Your task to perform on an android device: Empty the shopping cart on costco.com. Search for logitech g910 on costco.com, select the first entry, add it to the cart, then select checkout. Image 0: 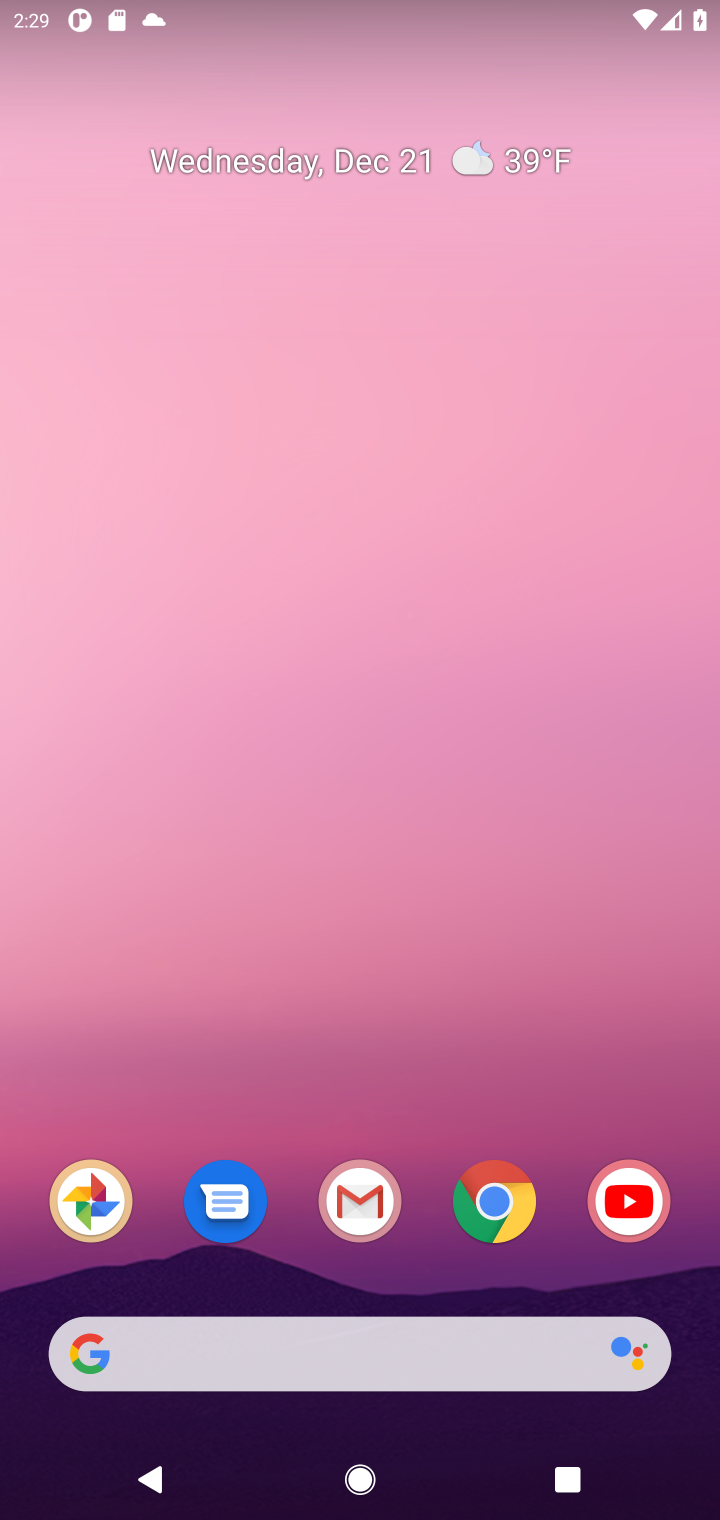
Step 0: click (508, 1208)
Your task to perform on an android device: Empty the shopping cart on costco.com. Search for logitech g910 on costco.com, select the first entry, add it to the cart, then select checkout. Image 1: 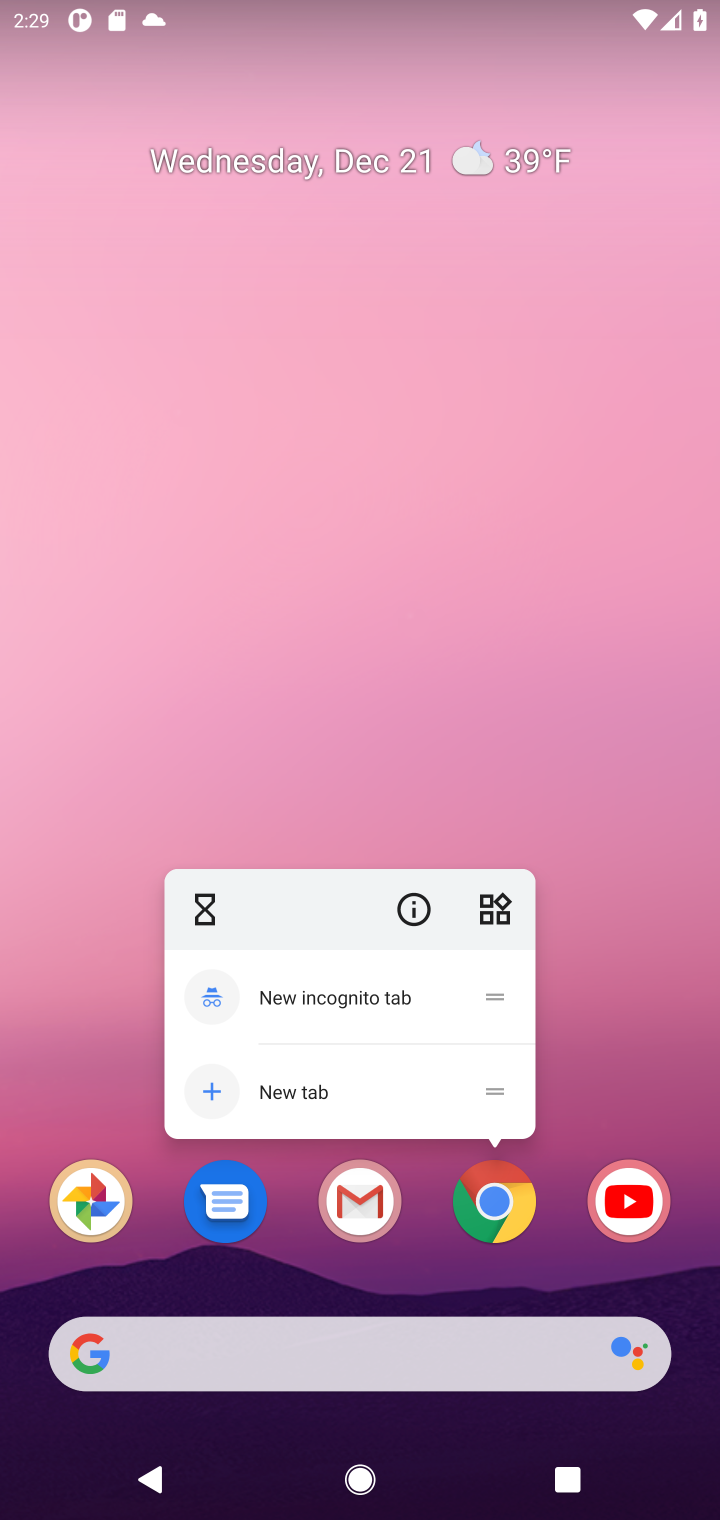
Step 1: click (506, 1208)
Your task to perform on an android device: Empty the shopping cart on costco.com. Search for logitech g910 on costco.com, select the first entry, add it to the cart, then select checkout. Image 2: 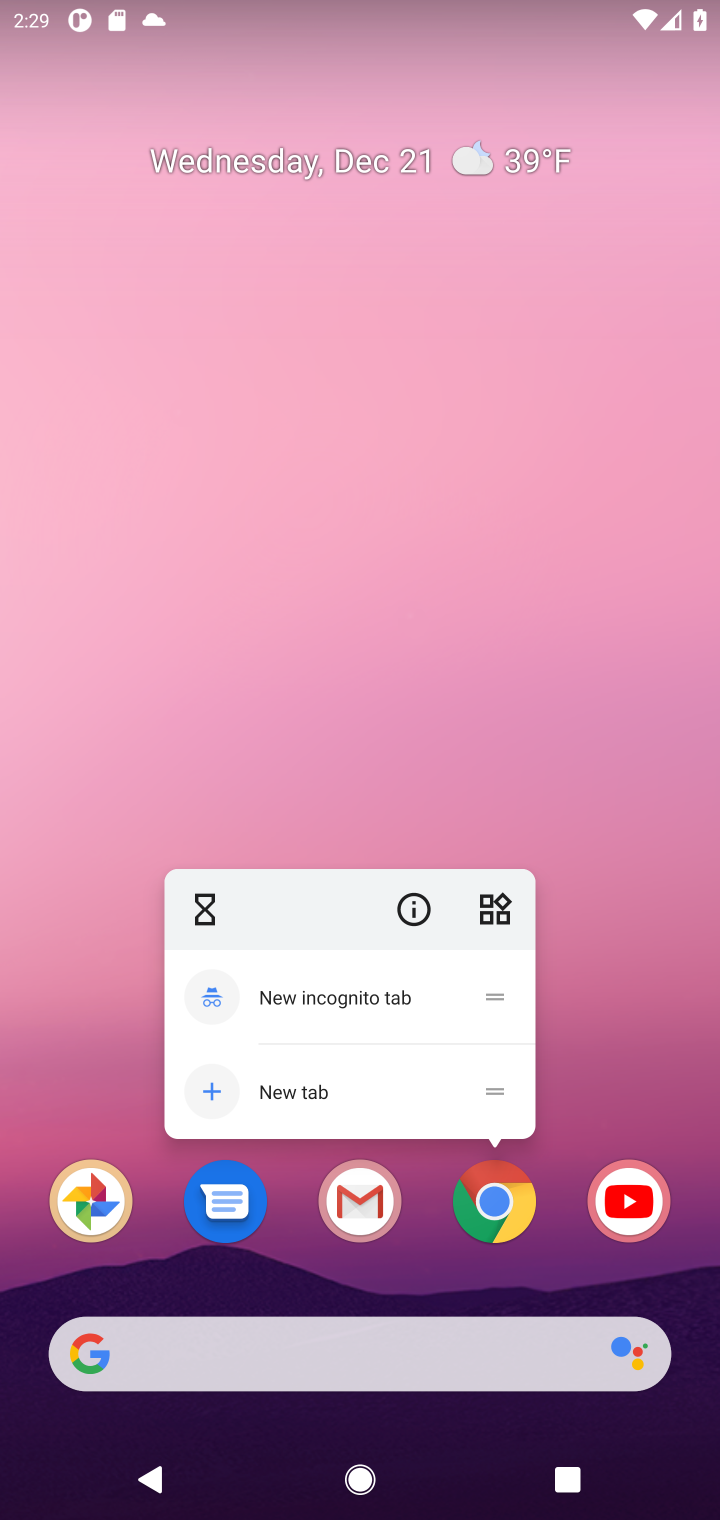
Step 2: click (506, 1208)
Your task to perform on an android device: Empty the shopping cart on costco.com. Search for logitech g910 on costco.com, select the first entry, add it to the cart, then select checkout. Image 3: 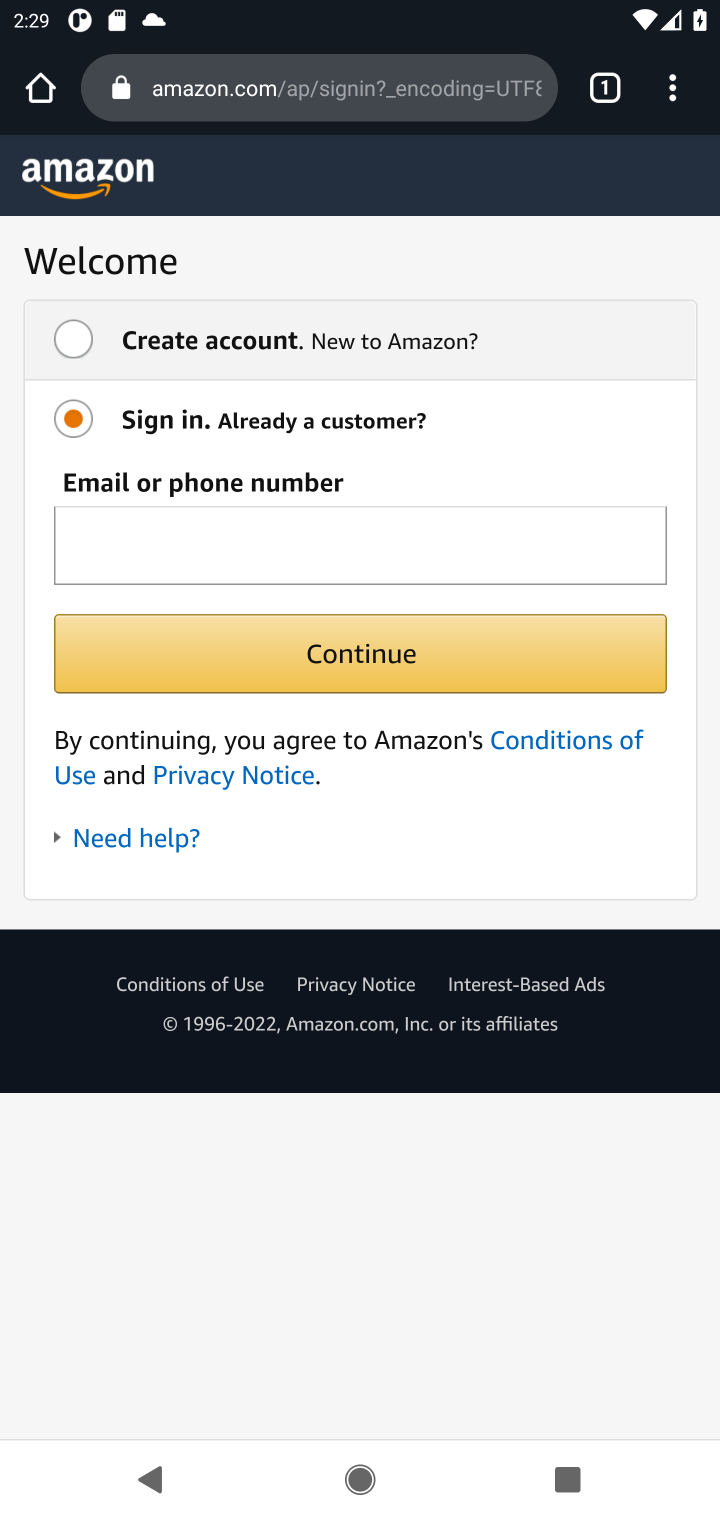
Step 3: click (268, 100)
Your task to perform on an android device: Empty the shopping cart on costco.com. Search for logitech g910 on costco.com, select the first entry, add it to the cart, then select checkout. Image 4: 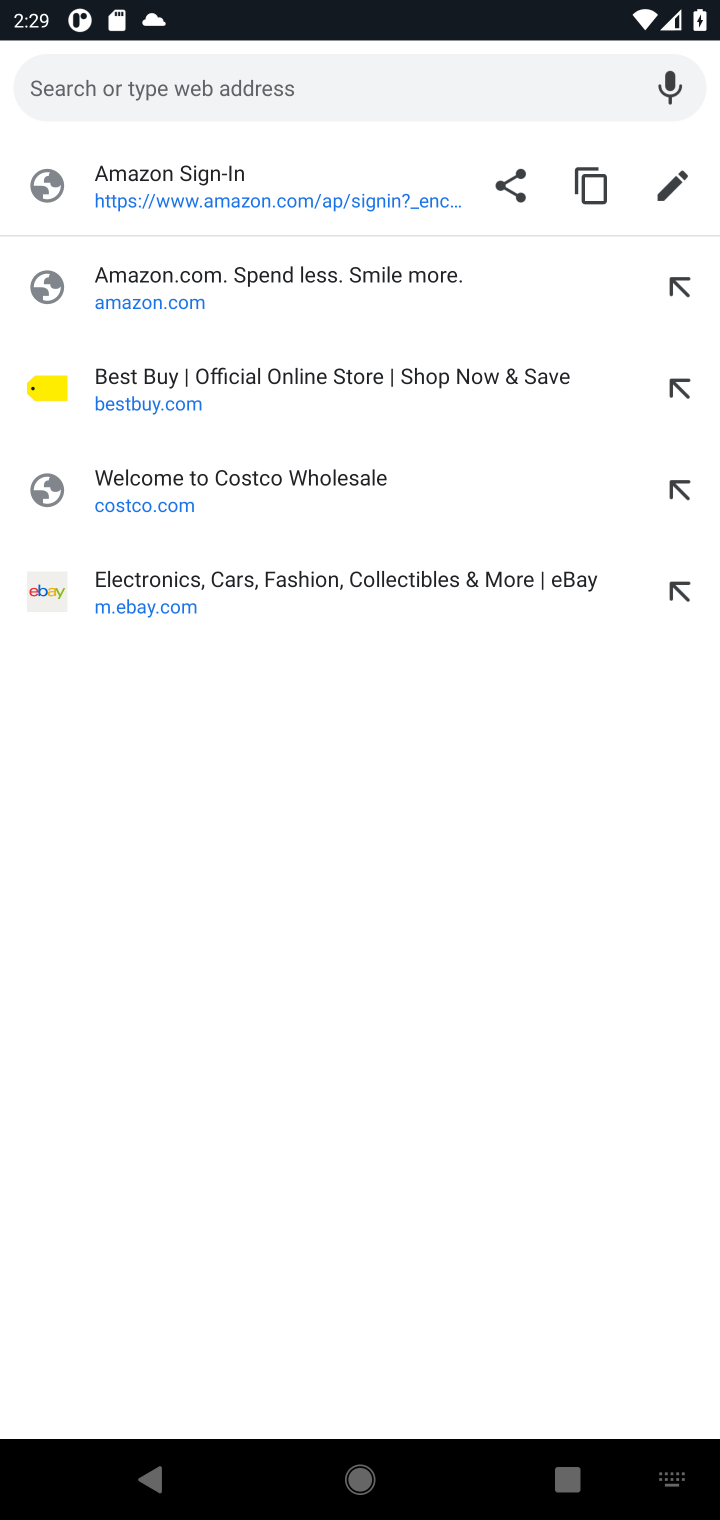
Step 4: click (140, 480)
Your task to perform on an android device: Empty the shopping cart on costco.com. Search for logitech g910 on costco.com, select the first entry, add it to the cart, then select checkout. Image 5: 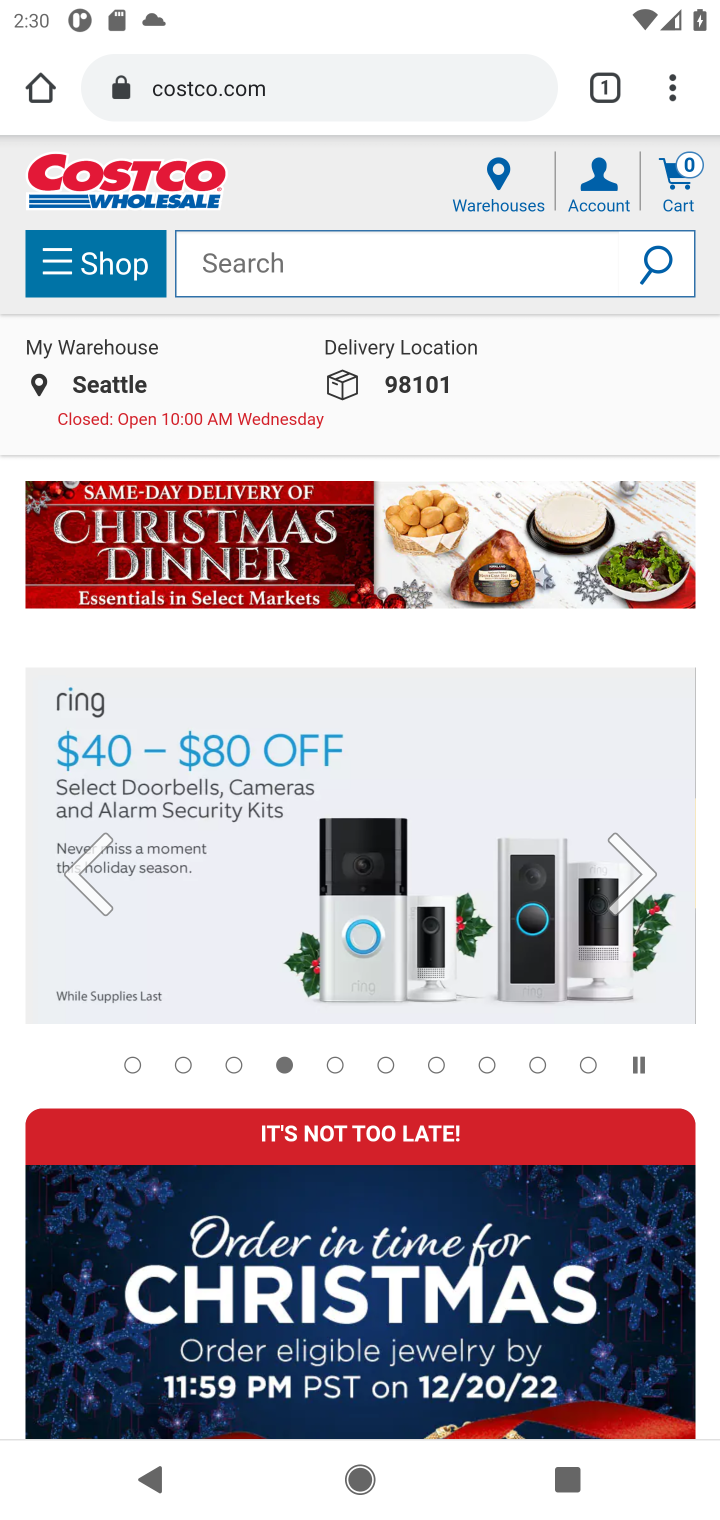
Step 5: click (685, 194)
Your task to perform on an android device: Empty the shopping cart on costco.com. Search for logitech g910 on costco.com, select the first entry, add it to the cart, then select checkout. Image 6: 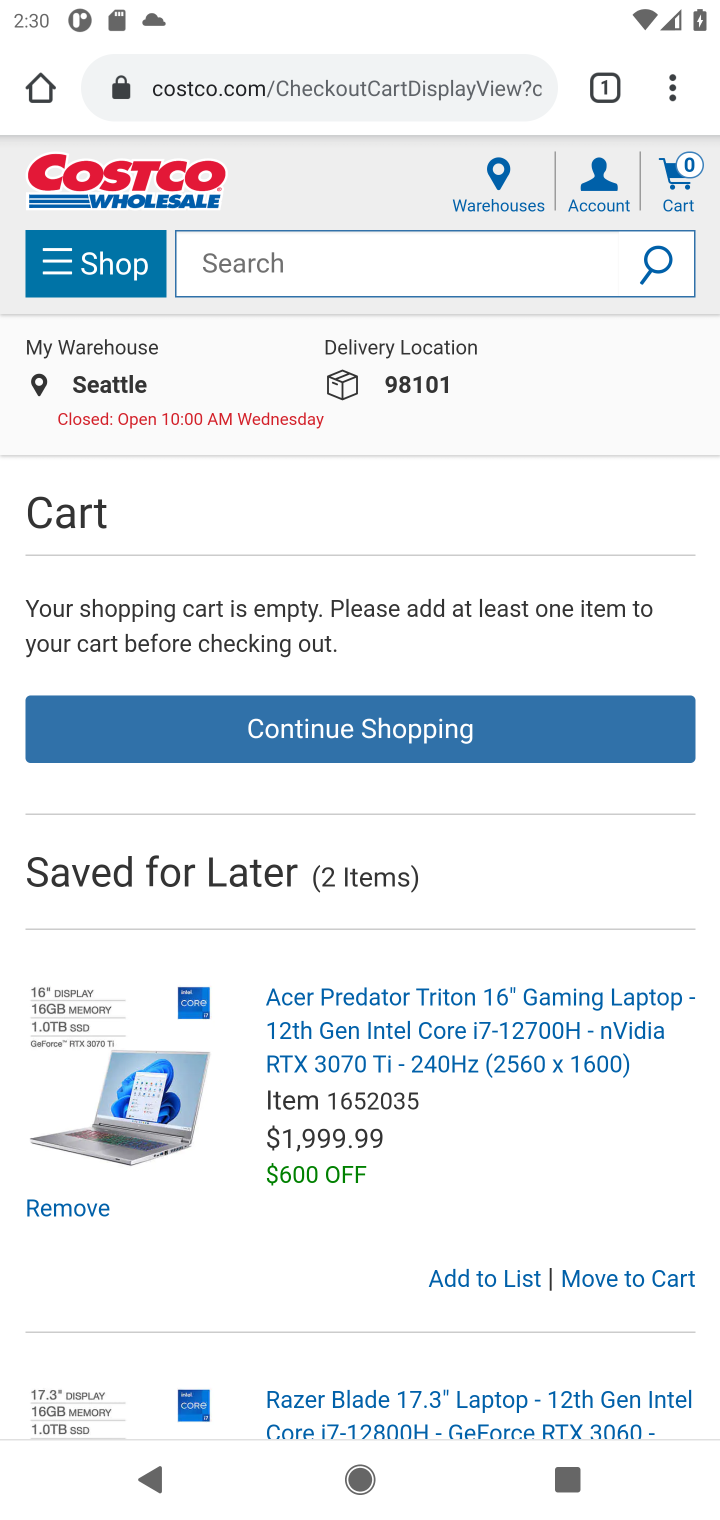
Step 6: click (254, 274)
Your task to perform on an android device: Empty the shopping cart on costco.com. Search for logitech g910 on costco.com, select the first entry, add it to the cart, then select checkout. Image 7: 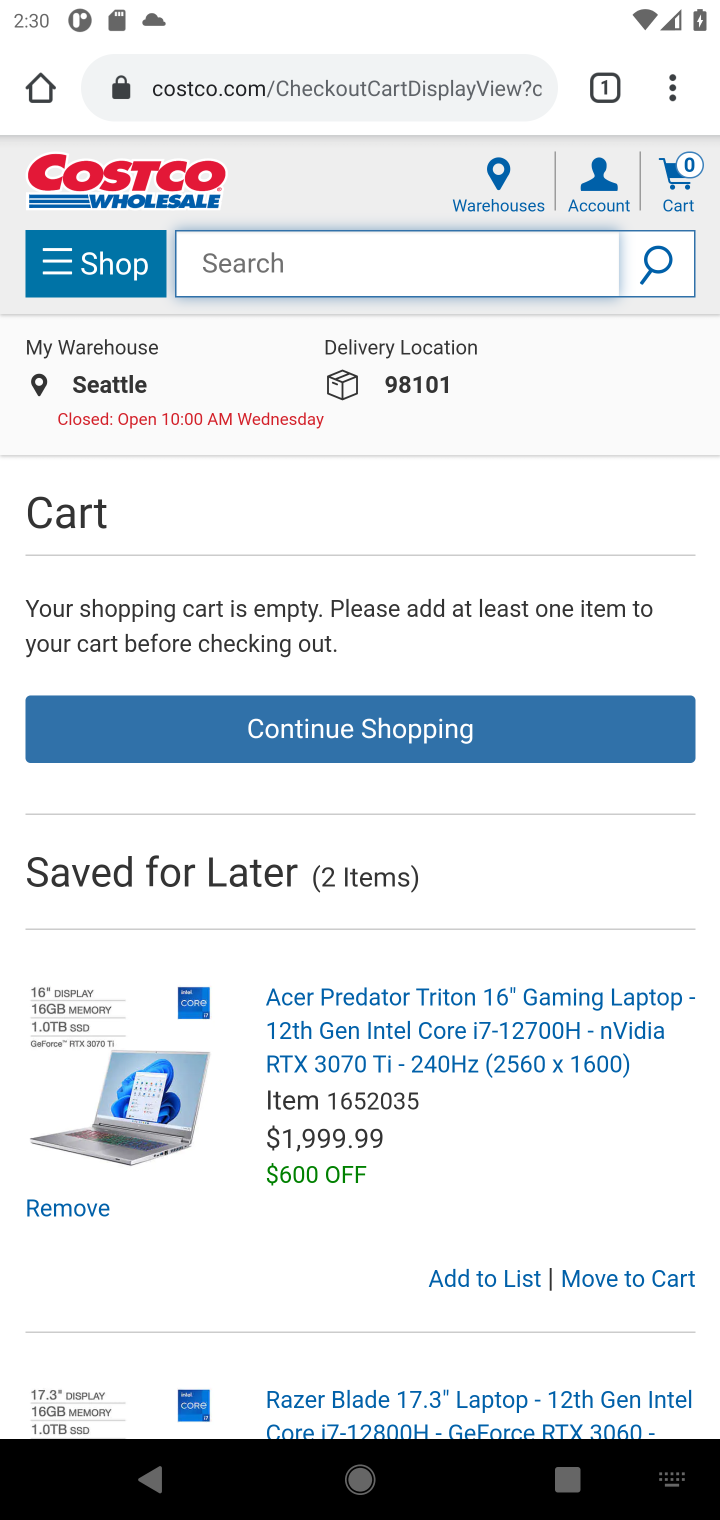
Step 7: type "logitech g910 "
Your task to perform on an android device: Empty the shopping cart on costco.com. Search for logitech g910 on costco.com, select the first entry, add it to the cart, then select checkout. Image 8: 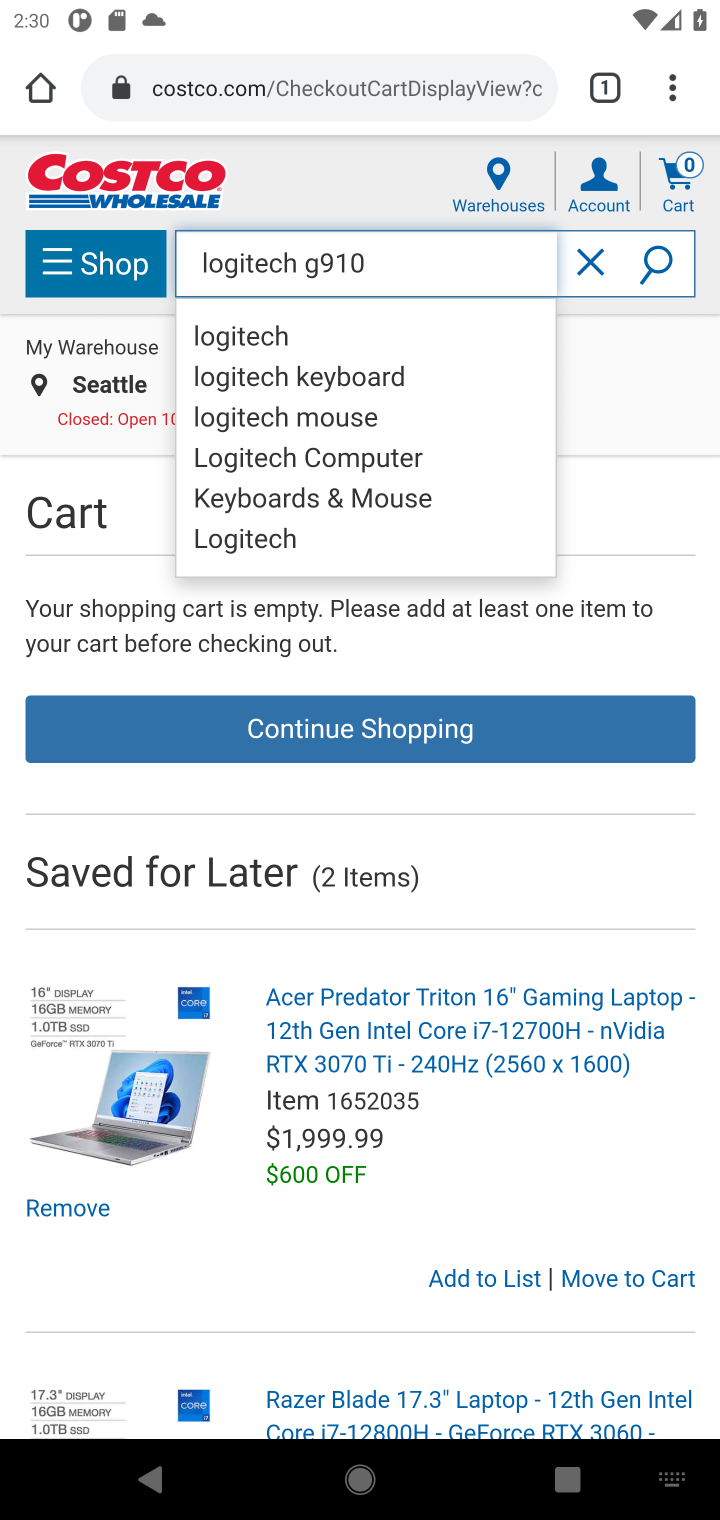
Step 8: click (668, 272)
Your task to perform on an android device: Empty the shopping cart on costco.com. Search for logitech g910 on costco.com, select the first entry, add it to the cart, then select checkout. Image 9: 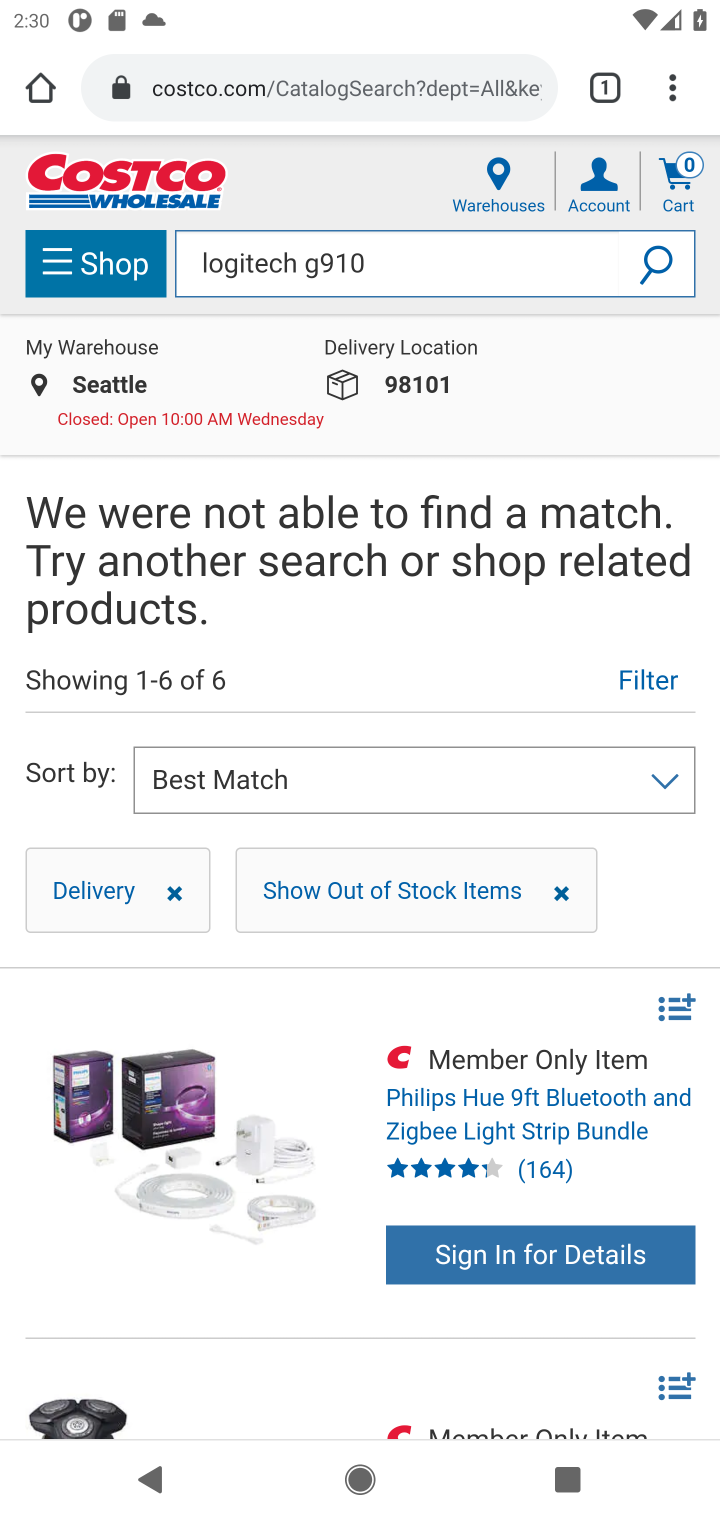
Step 9: task complete